Your task to perform on an android device: move an email to a new category in the gmail app Image 0: 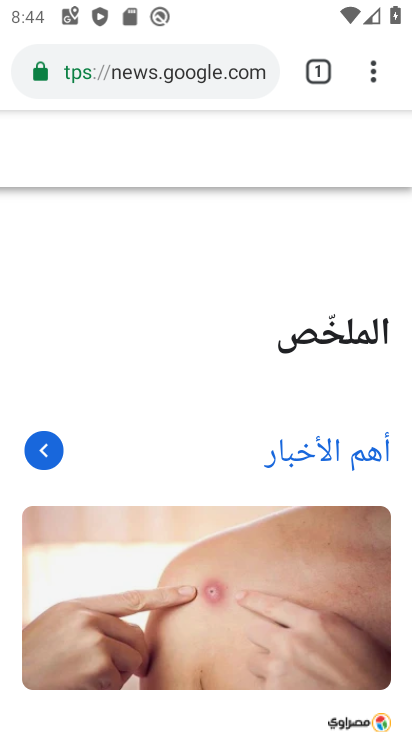
Step 0: press home button
Your task to perform on an android device: move an email to a new category in the gmail app Image 1: 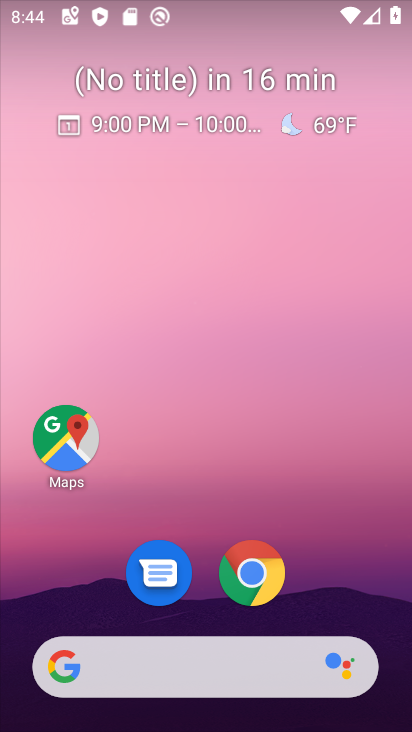
Step 1: drag from (182, 589) to (226, 112)
Your task to perform on an android device: move an email to a new category in the gmail app Image 2: 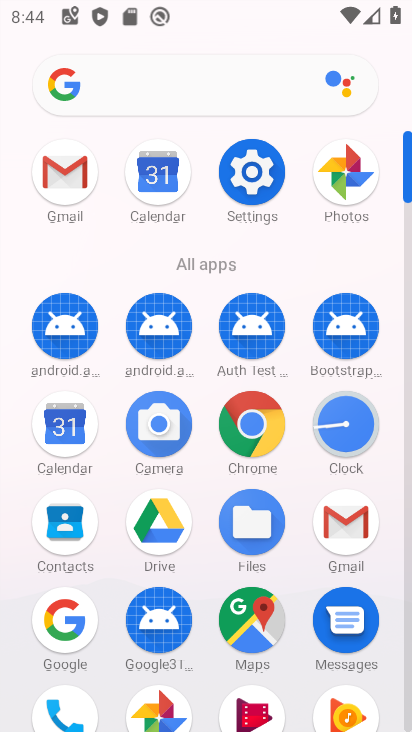
Step 2: click (352, 535)
Your task to perform on an android device: move an email to a new category in the gmail app Image 3: 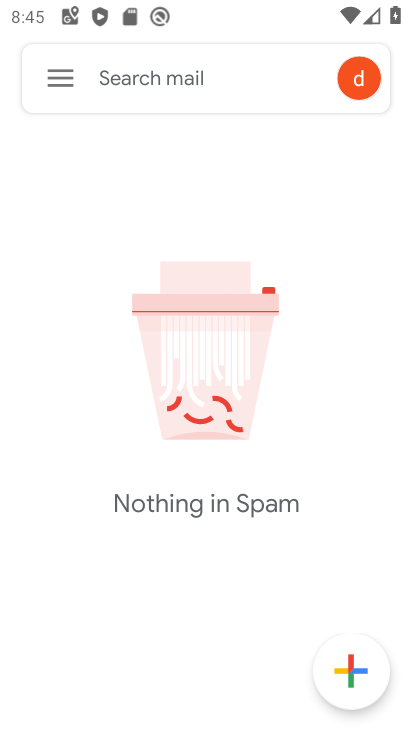
Step 3: press home button
Your task to perform on an android device: move an email to a new category in the gmail app Image 4: 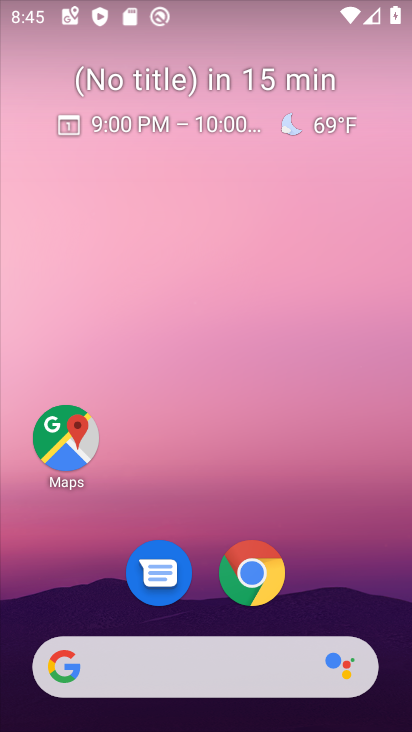
Step 4: drag from (185, 612) to (198, 13)
Your task to perform on an android device: move an email to a new category in the gmail app Image 5: 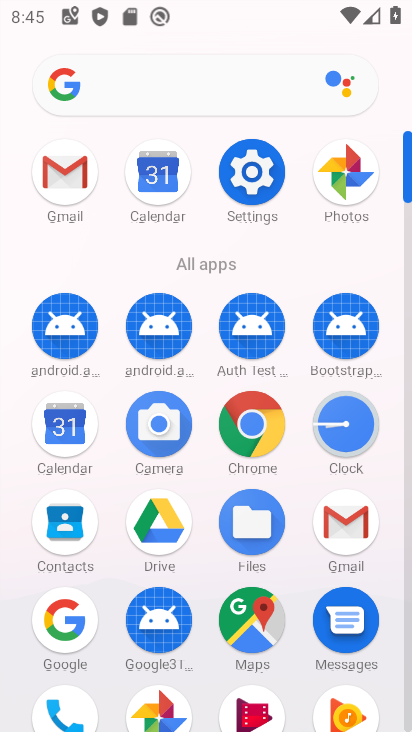
Step 5: click (346, 534)
Your task to perform on an android device: move an email to a new category in the gmail app Image 6: 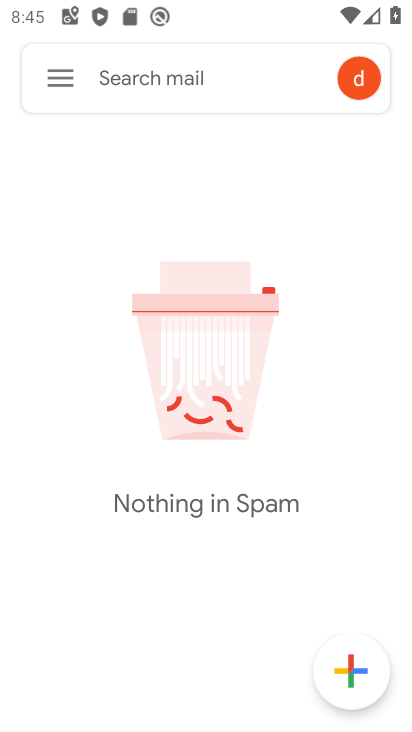
Step 6: click (59, 89)
Your task to perform on an android device: move an email to a new category in the gmail app Image 7: 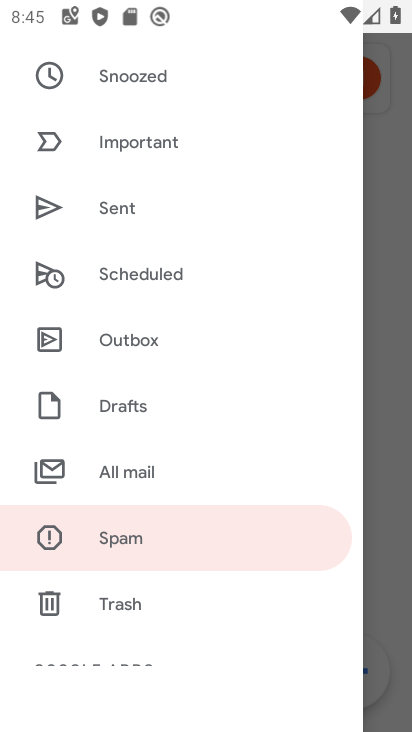
Step 7: click (170, 481)
Your task to perform on an android device: move an email to a new category in the gmail app Image 8: 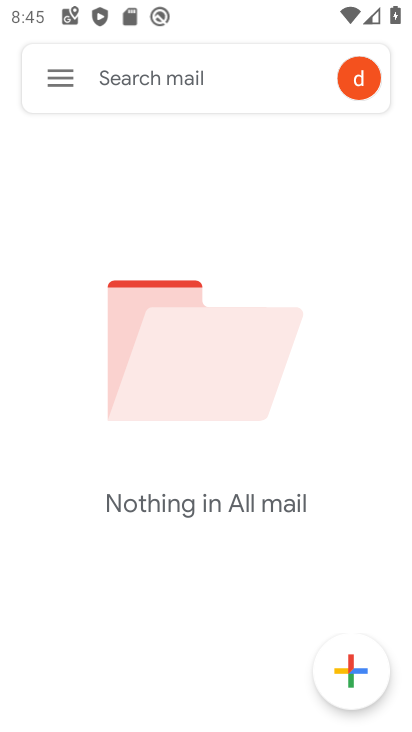
Step 8: task complete